Your task to perform on an android device: Open privacy settings Image 0: 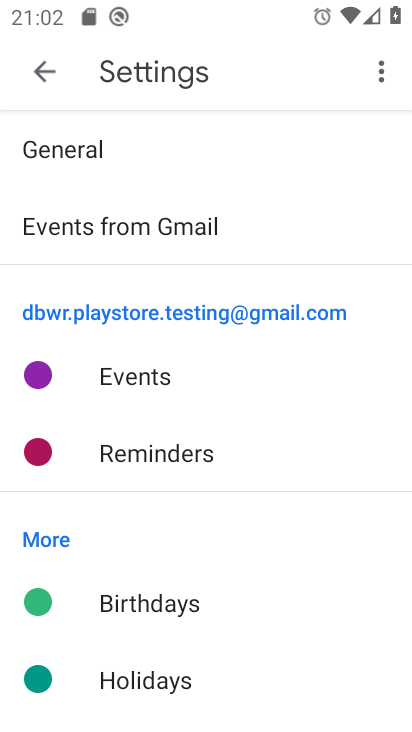
Step 0: press home button
Your task to perform on an android device: Open privacy settings Image 1: 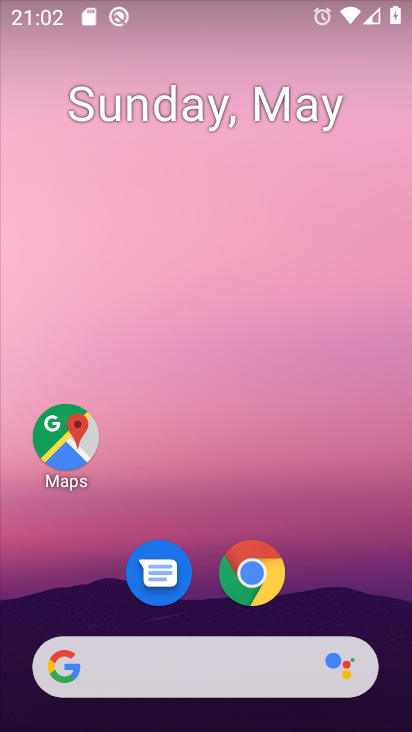
Step 1: drag from (245, 479) to (228, 5)
Your task to perform on an android device: Open privacy settings Image 2: 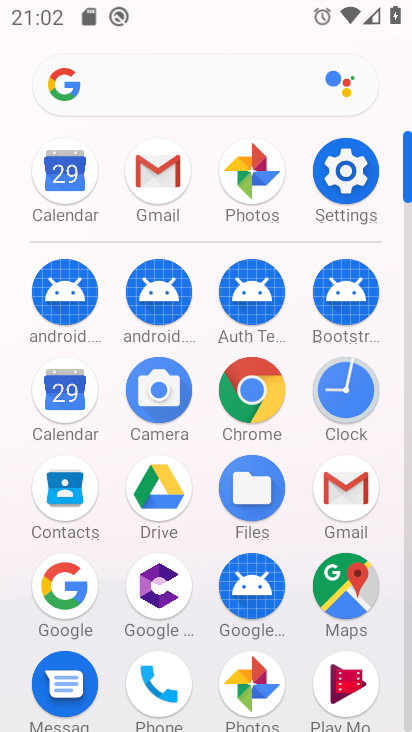
Step 2: click (329, 169)
Your task to perform on an android device: Open privacy settings Image 3: 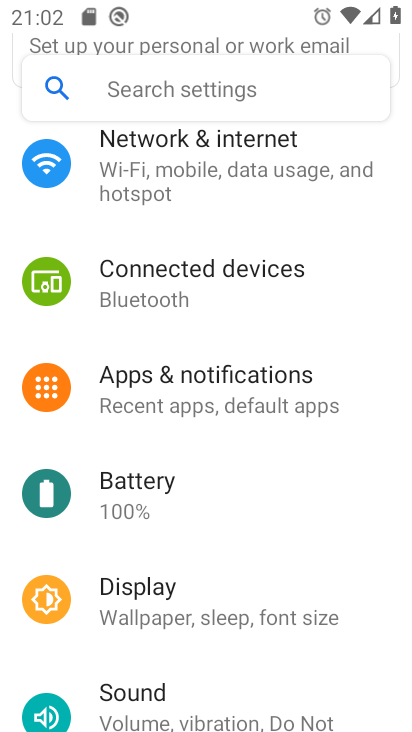
Step 3: drag from (247, 558) to (265, 97)
Your task to perform on an android device: Open privacy settings Image 4: 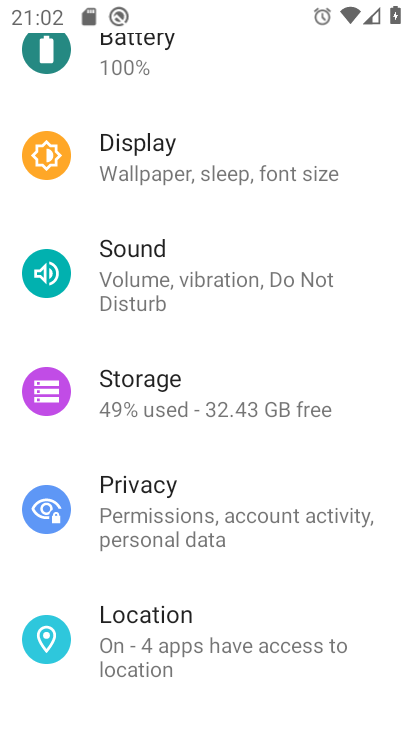
Step 4: click (223, 511)
Your task to perform on an android device: Open privacy settings Image 5: 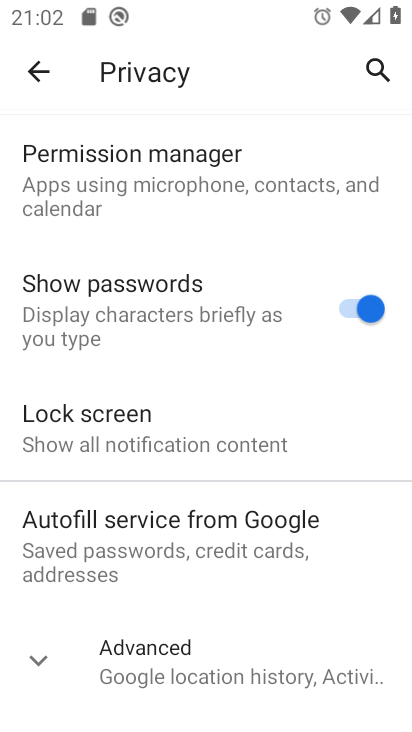
Step 5: task complete